Your task to perform on an android device: Open eBay Image 0: 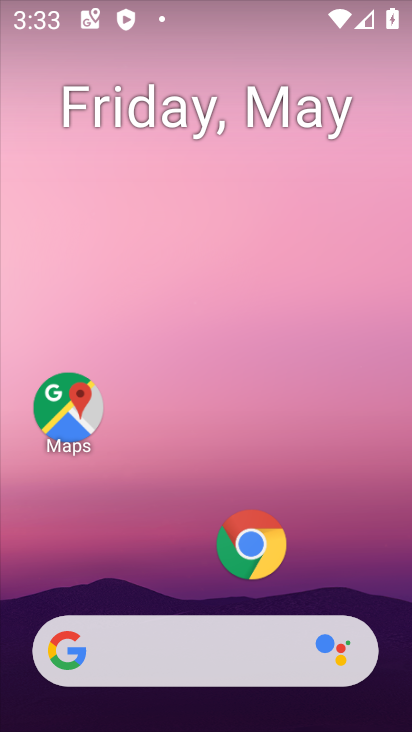
Step 0: click (262, 548)
Your task to perform on an android device: Open eBay Image 1: 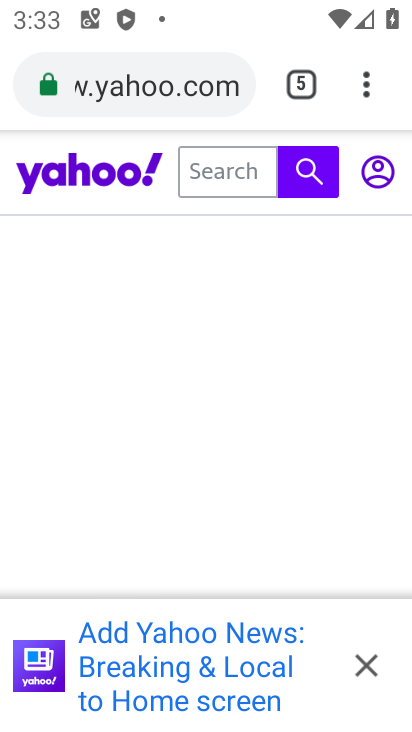
Step 1: click (298, 83)
Your task to perform on an android device: Open eBay Image 2: 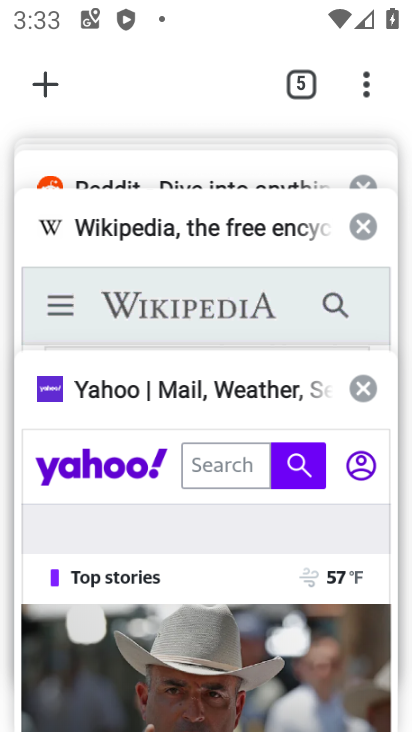
Step 2: drag from (164, 221) to (164, 448)
Your task to perform on an android device: Open eBay Image 3: 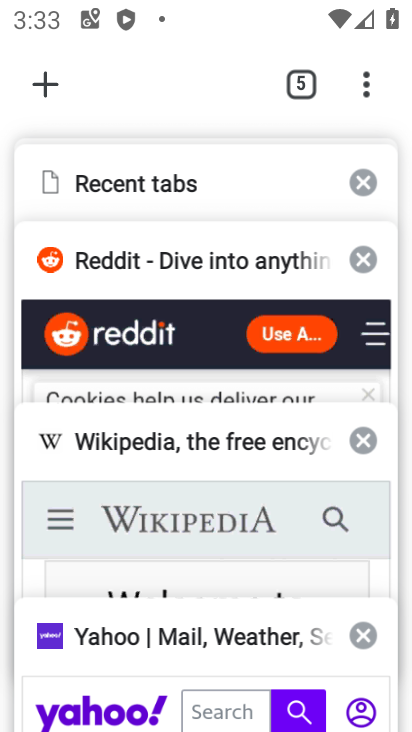
Step 3: drag from (171, 265) to (179, 482)
Your task to perform on an android device: Open eBay Image 4: 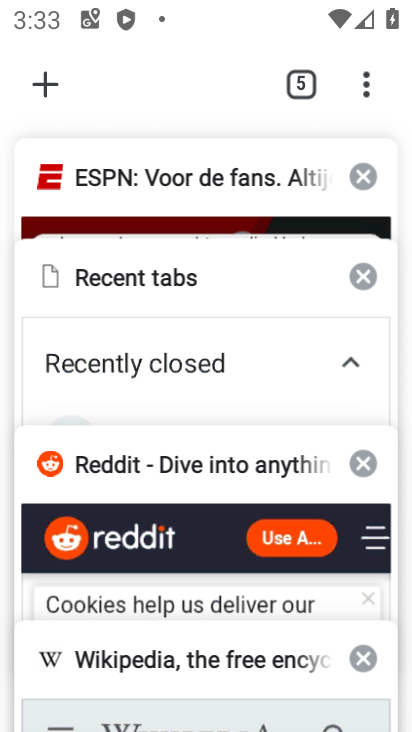
Step 4: drag from (101, 244) to (101, 435)
Your task to perform on an android device: Open eBay Image 5: 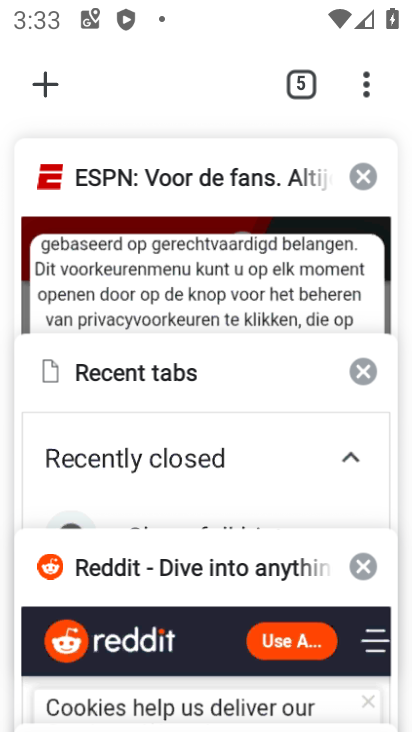
Step 5: drag from (137, 251) to (156, 432)
Your task to perform on an android device: Open eBay Image 6: 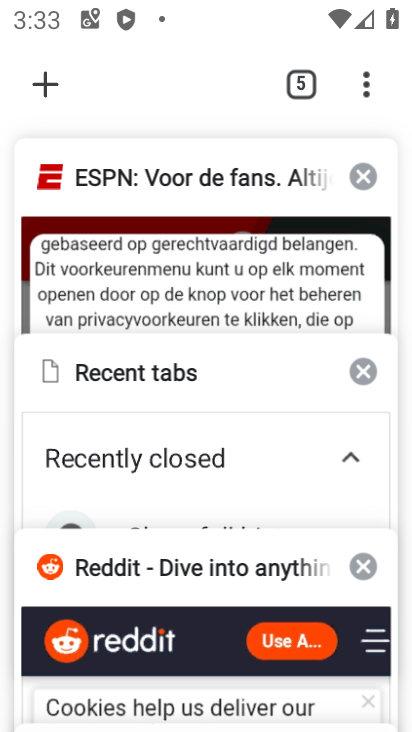
Step 6: click (44, 87)
Your task to perform on an android device: Open eBay Image 7: 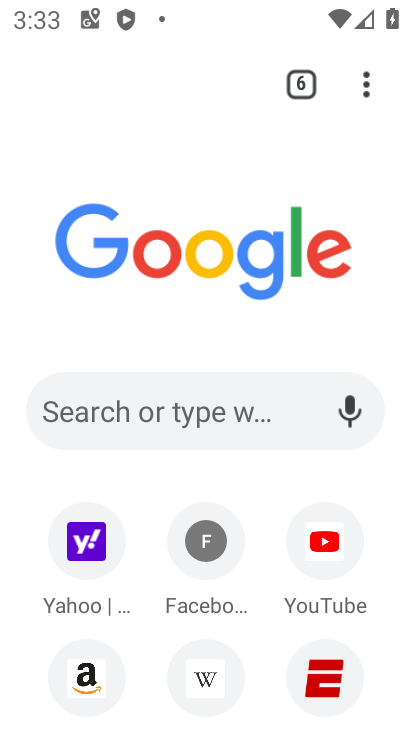
Step 7: drag from (224, 623) to (268, 456)
Your task to perform on an android device: Open eBay Image 8: 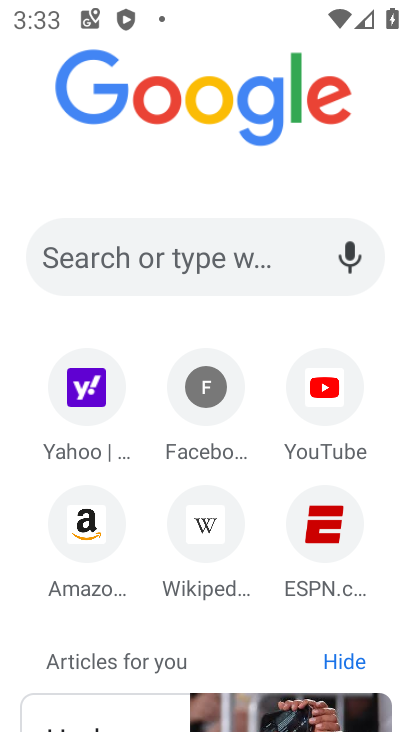
Step 8: click (213, 266)
Your task to perform on an android device: Open eBay Image 9: 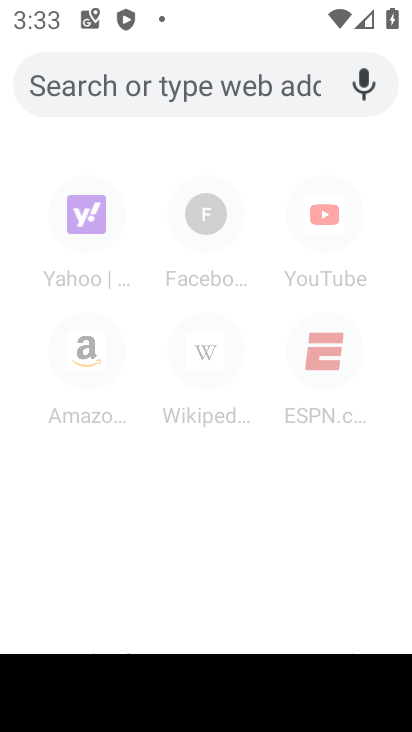
Step 9: type "eBay"
Your task to perform on an android device: Open eBay Image 10: 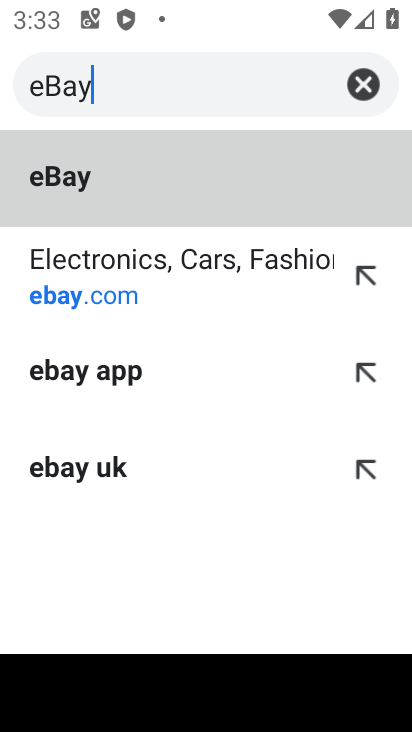
Step 10: click (40, 194)
Your task to perform on an android device: Open eBay Image 11: 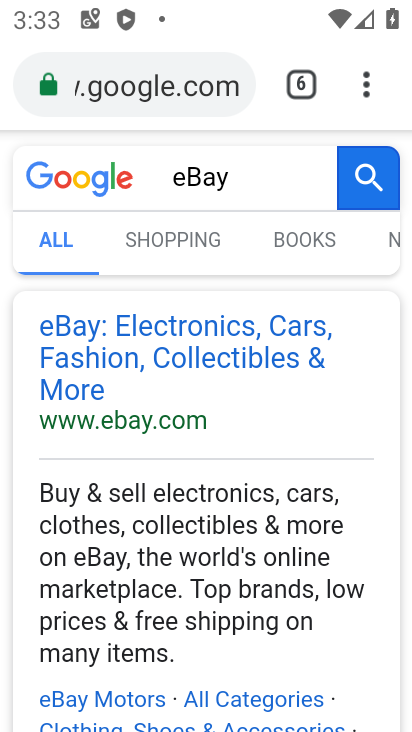
Step 11: click (136, 322)
Your task to perform on an android device: Open eBay Image 12: 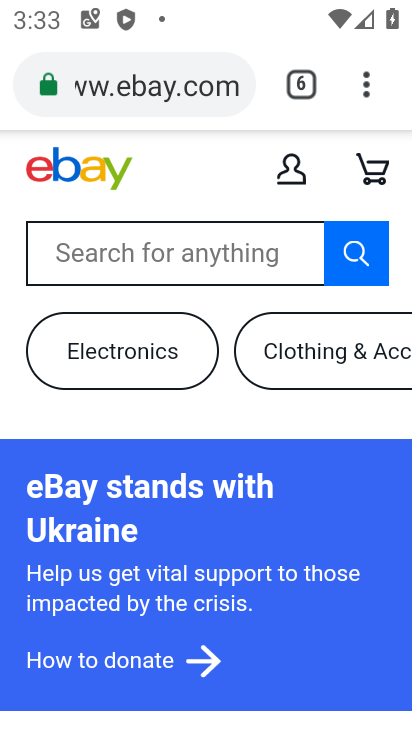
Step 12: task complete